Your task to perform on an android device: turn notification dots off Image 0: 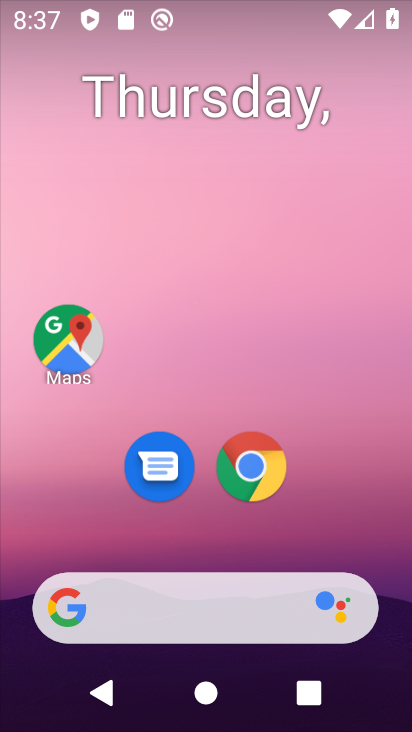
Step 0: press home button
Your task to perform on an android device: turn notification dots off Image 1: 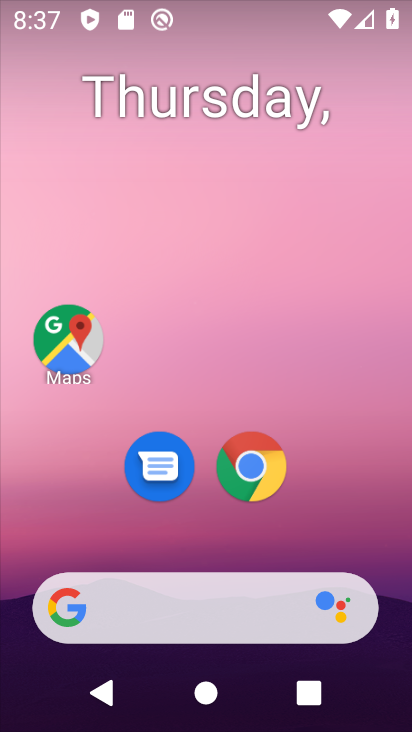
Step 1: drag from (192, 607) to (298, 199)
Your task to perform on an android device: turn notification dots off Image 2: 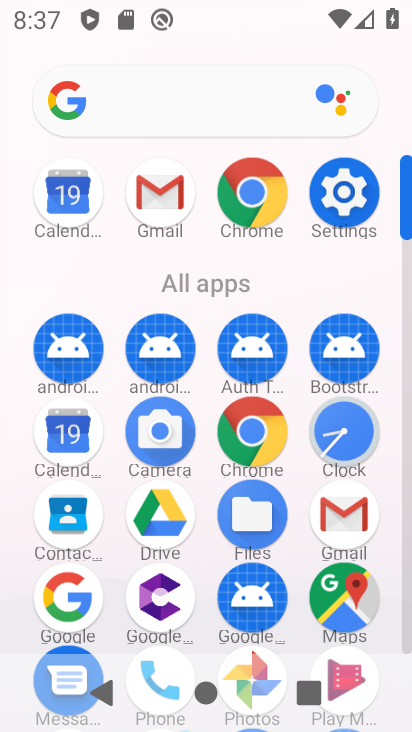
Step 2: click (346, 197)
Your task to perform on an android device: turn notification dots off Image 3: 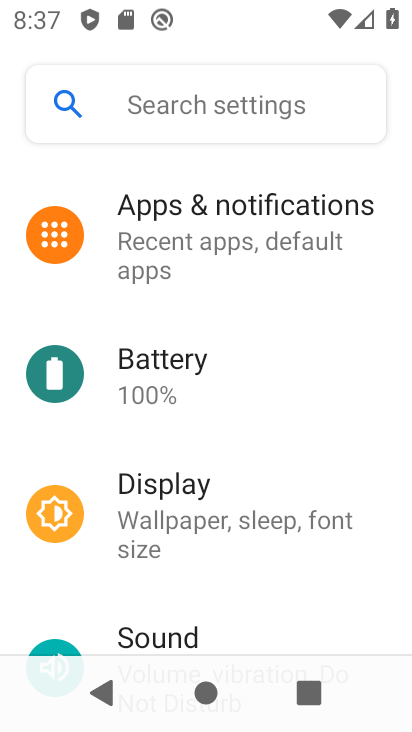
Step 3: click (290, 214)
Your task to perform on an android device: turn notification dots off Image 4: 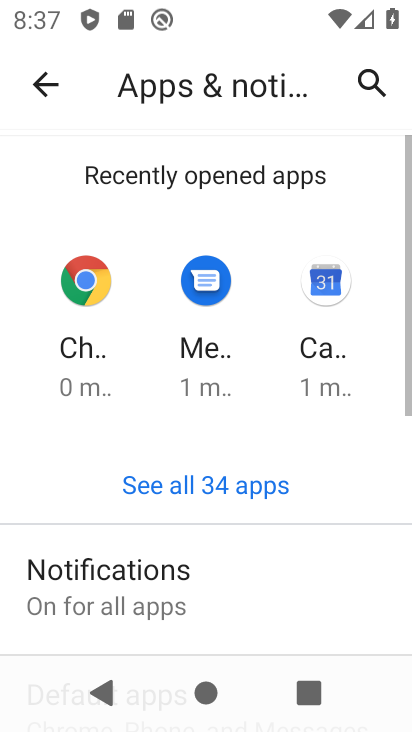
Step 4: click (146, 571)
Your task to perform on an android device: turn notification dots off Image 5: 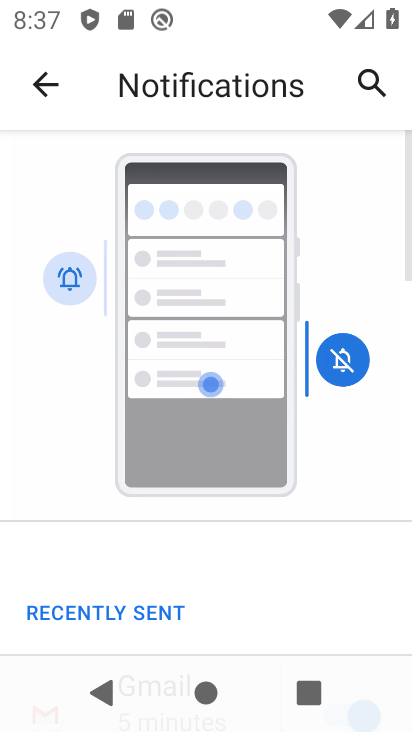
Step 5: drag from (196, 590) to (377, 143)
Your task to perform on an android device: turn notification dots off Image 6: 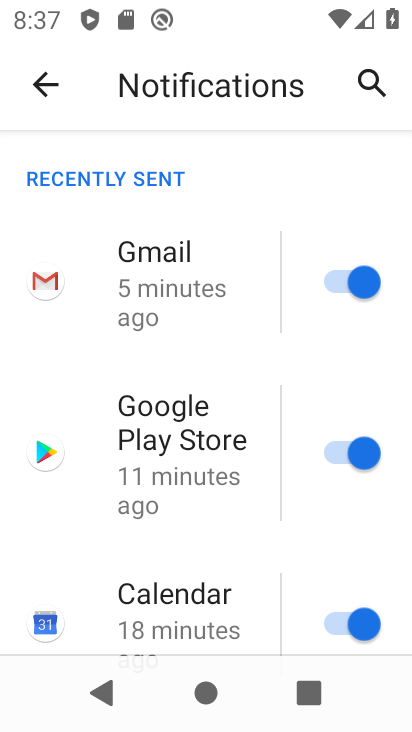
Step 6: drag from (236, 584) to (410, 58)
Your task to perform on an android device: turn notification dots off Image 7: 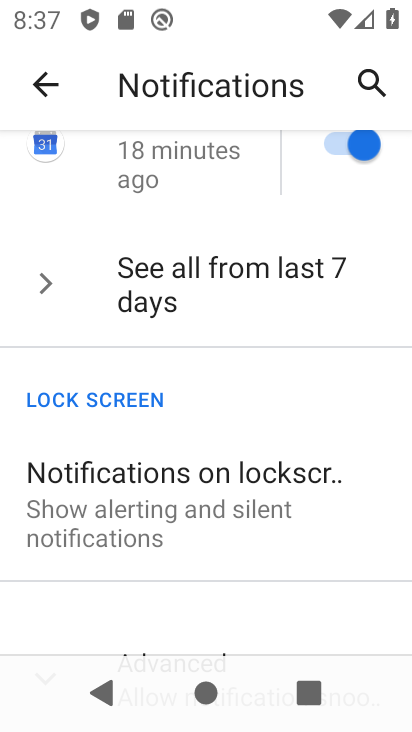
Step 7: drag from (251, 445) to (350, 73)
Your task to perform on an android device: turn notification dots off Image 8: 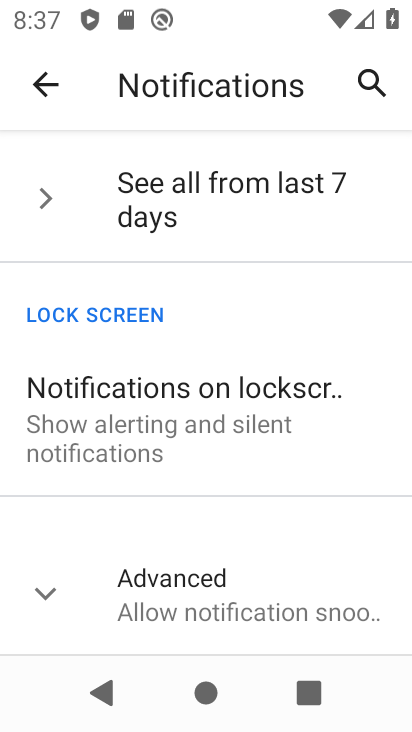
Step 8: click (178, 594)
Your task to perform on an android device: turn notification dots off Image 9: 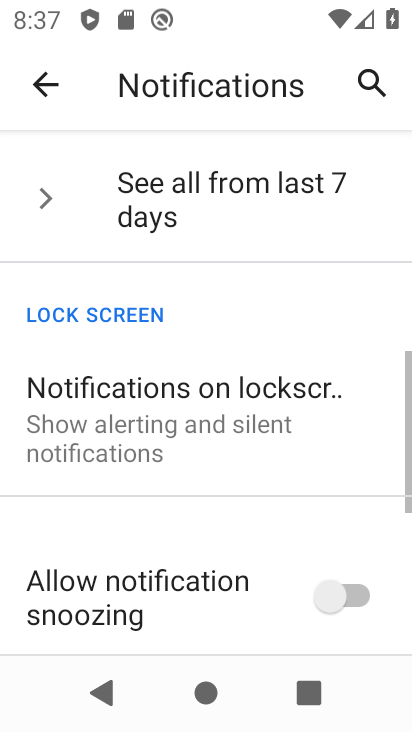
Step 9: drag from (198, 616) to (306, 183)
Your task to perform on an android device: turn notification dots off Image 10: 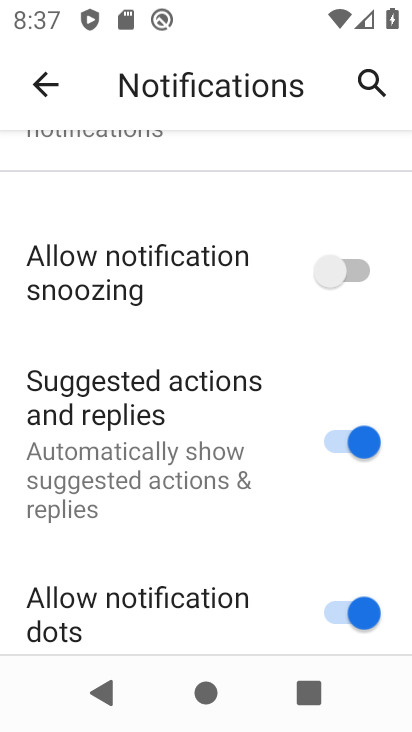
Step 10: drag from (206, 550) to (332, 221)
Your task to perform on an android device: turn notification dots off Image 11: 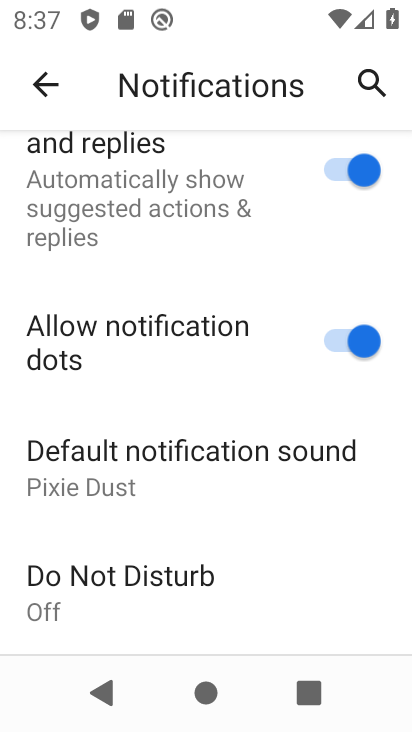
Step 11: click (338, 342)
Your task to perform on an android device: turn notification dots off Image 12: 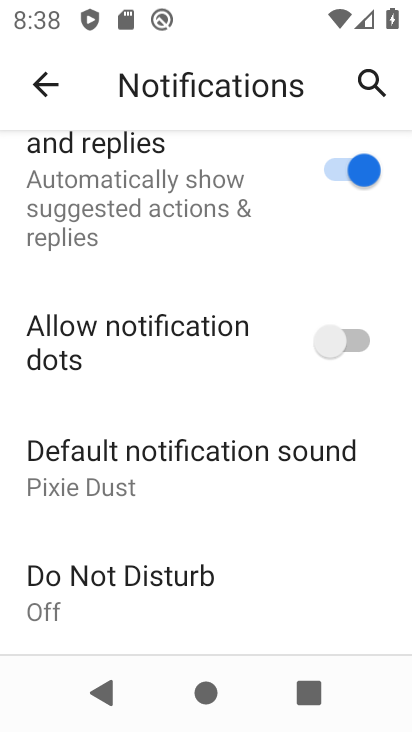
Step 12: task complete